Your task to perform on an android device: Turn off the flashlight Image 0: 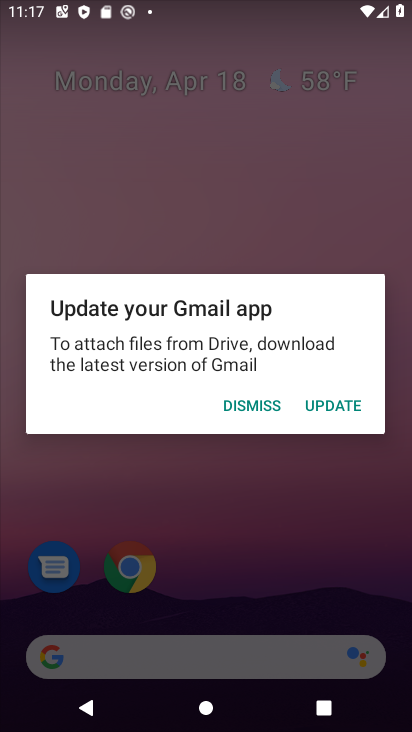
Step 0: press home button
Your task to perform on an android device: Turn off the flashlight Image 1: 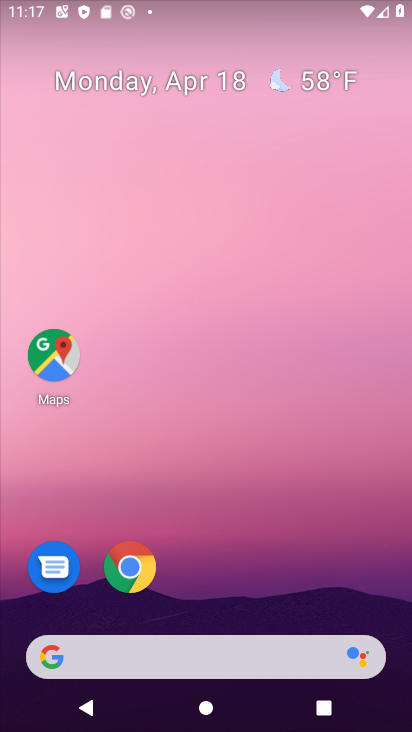
Step 1: drag from (224, 23) to (225, 456)
Your task to perform on an android device: Turn off the flashlight Image 2: 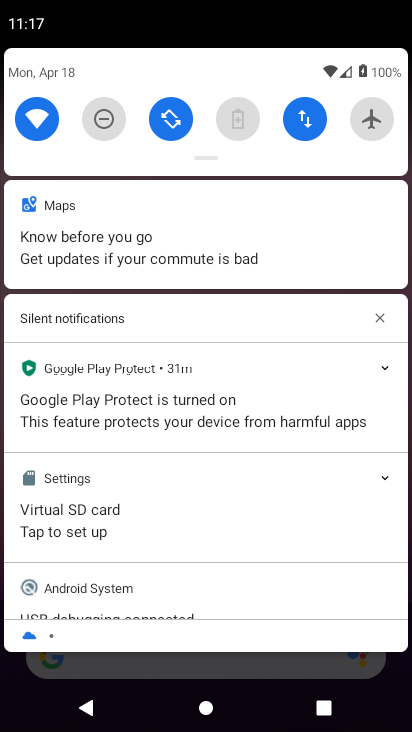
Step 2: drag from (211, 167) to (197, 424)
Your task to perform on an android device: Turn off the flashlight Image 3: 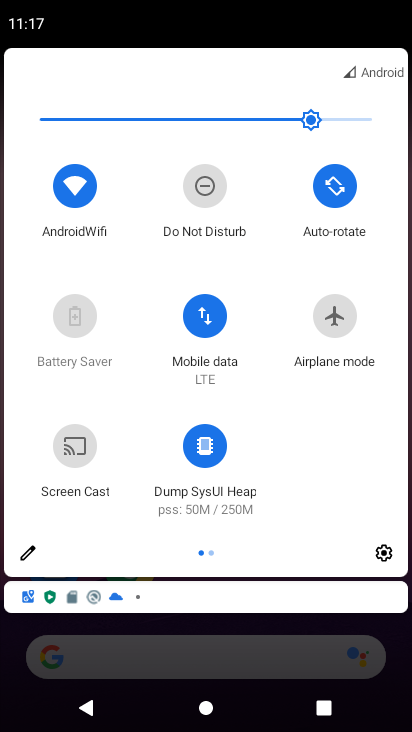
Step 3: click (18, 551)
Your task to perform on an android device: Turn off the flashlight Image 4: 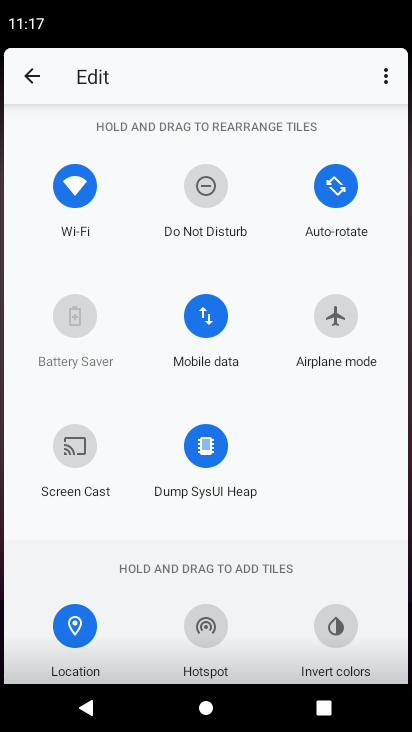
Step 4: task complete